Your task to perform on an android device: move an email to a new category in the gmail app Image 0: 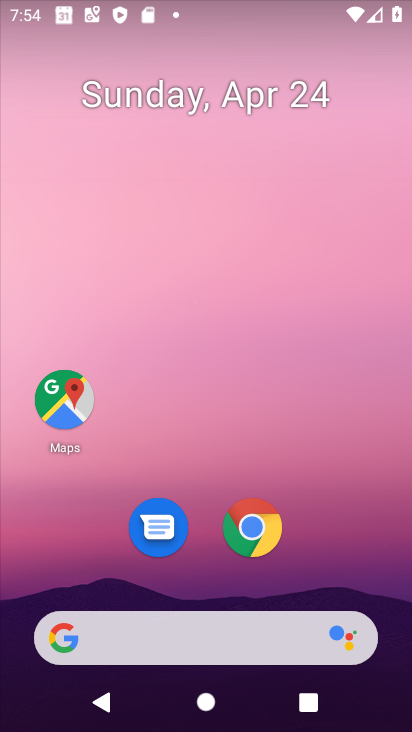
Step 0: drag from (399, 630) to (222, 43)
Your task to perform on an android device: move an email to a new category in the gmail app Image 1: 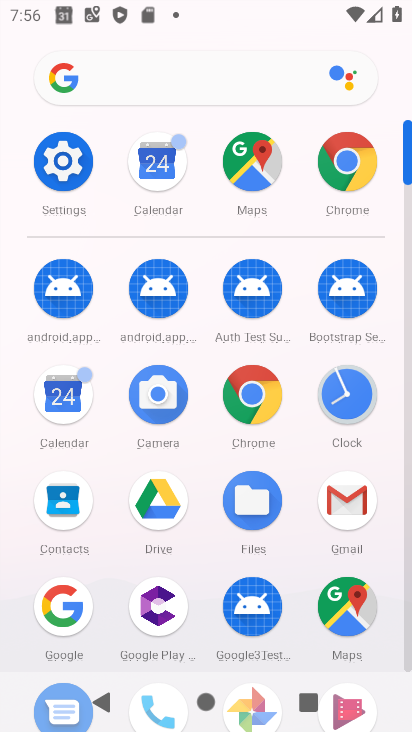
Step 1: click (345, 500)
Your task to perform on an android device: move an email to a new category in the gmail app Image 2: 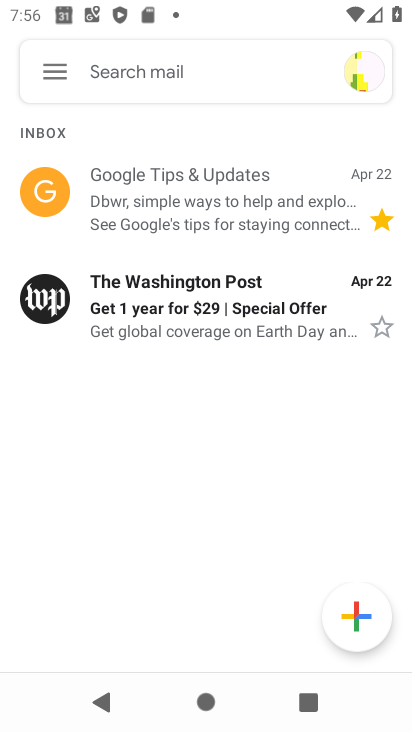
Step 2: click (171, 291)
Your task to perform on an android device: move an email to a new category in the gmail app Image 3: 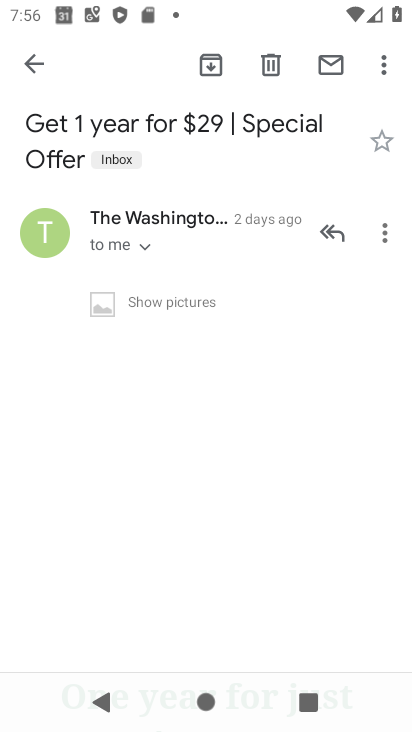
Step 3: click (386, 75)
Your task to perform on an android device: move an email to a new category in the gmail app Image 4: 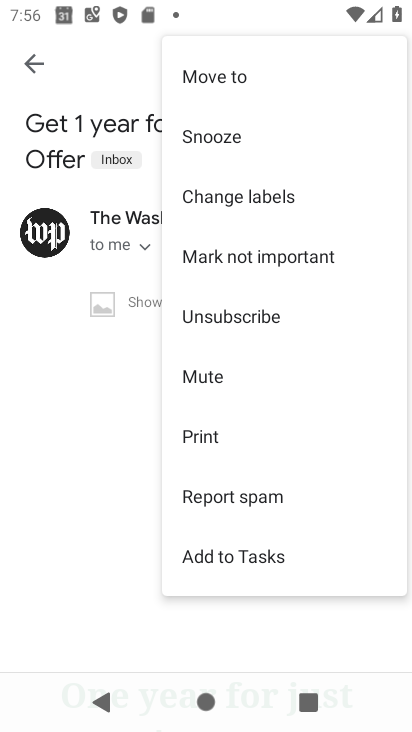
Step 4: click (334, 69)
Your task to perform on an android device: move an email to a new category in the gmail app Image 5: 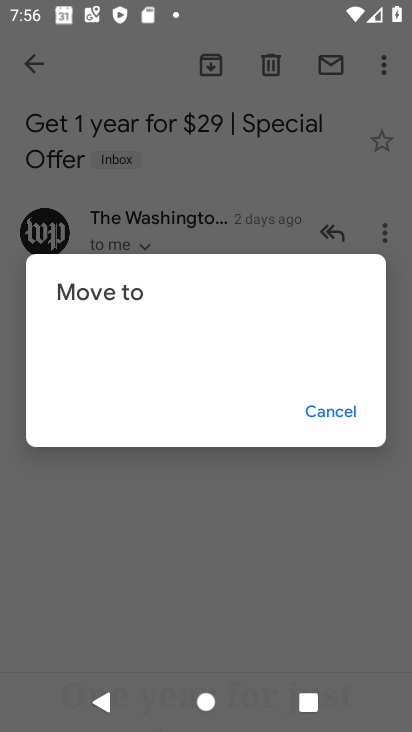
Step 5: task complete